Your task to perform on an android device: toggle airplane mode Image 0: 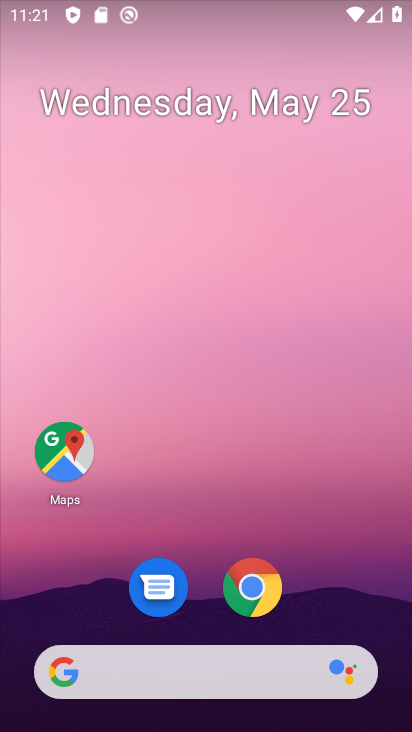
Step 0: drag from (277, 684) to (157, 55)
Your task to perform on an android device: toggle airplane mode Image 1: 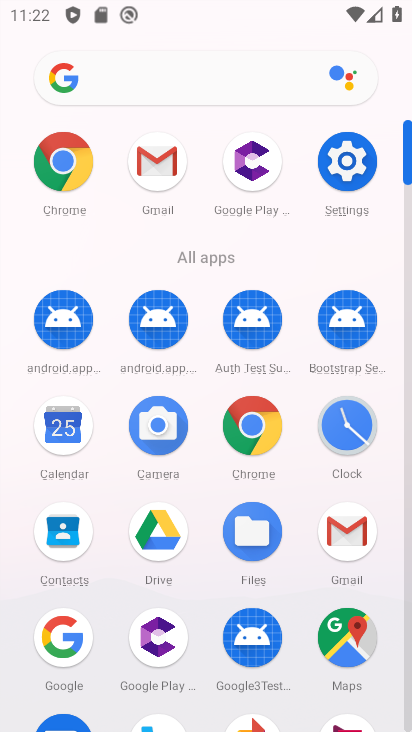
Step 1: click (344, 166)
Your task to perform on an android device: toggle airplane mode Image 2: 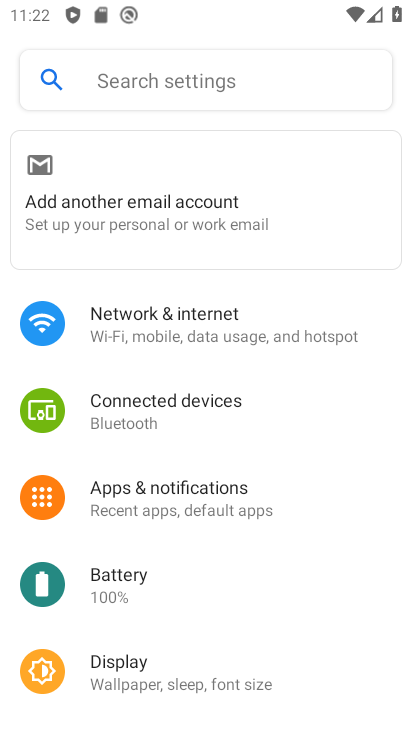
Step 2: click (151, 329)
Your task to perform on an android device: toggle airplane mode Image 3: 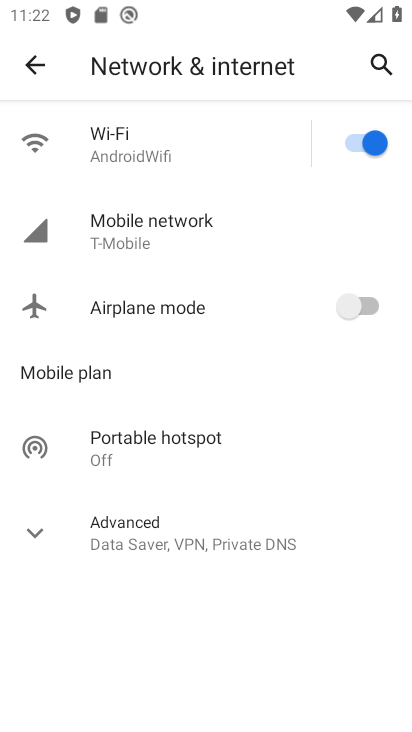
Step 3: task complete